Your task to perform on an android device: empty trash in google photos Image 0: 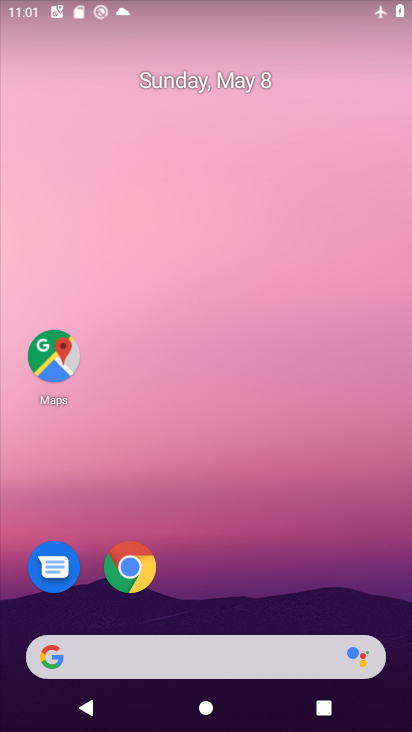
Step 0: drag from (265, 499) to (208, 107)
Your task to perform on an android device: empty trash in google photos Image 1: 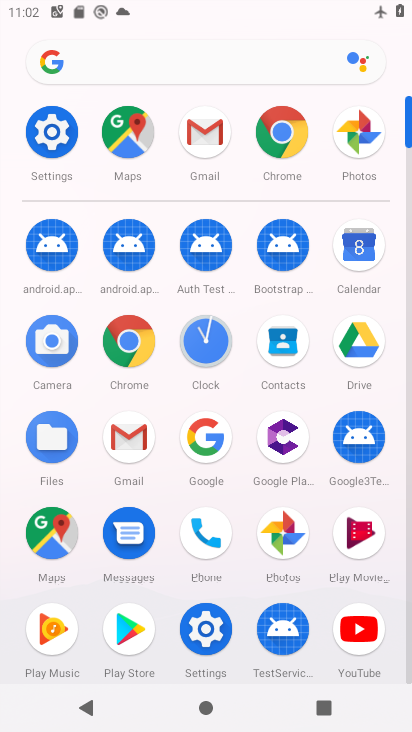
Step 1: click (370, 161)
Your task to perform on an android device: empty trash in google photos Image 2: 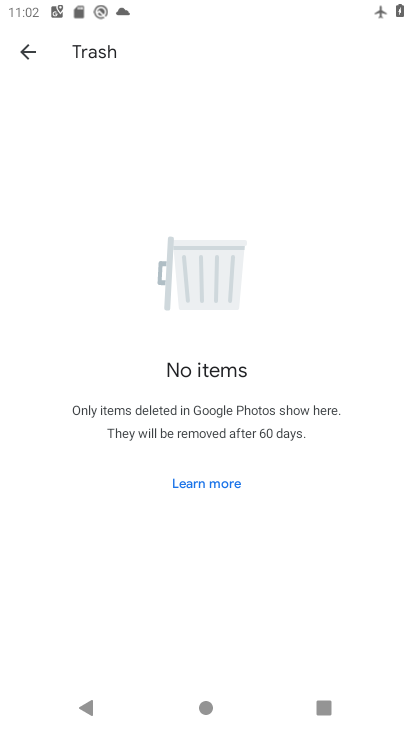
Step 2: click (18, 53)
Your task to perform on an android device: empty trash in google photos Image 3: 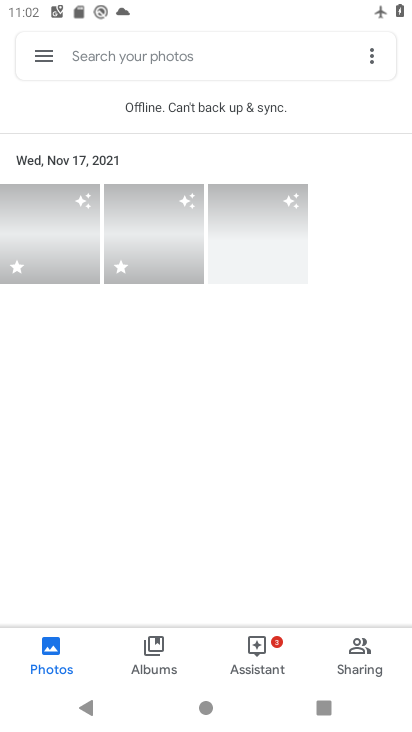
Step 3: click (50, 54)
Your task to perform on an android device: empty trash in google photos Image 4: 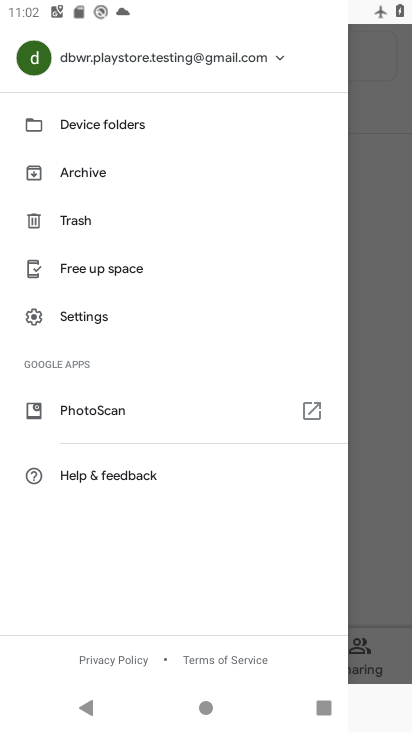
Step 4: click (91, 220)
Your task to perform on an android device: empty trash in google photos Image 5: 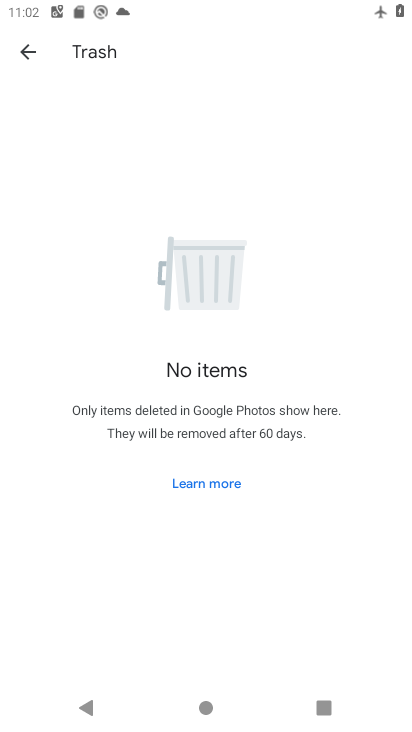
Step 5: task complete